Your task to perform on an android device: What's on my calendar tomorrow? Image 0: 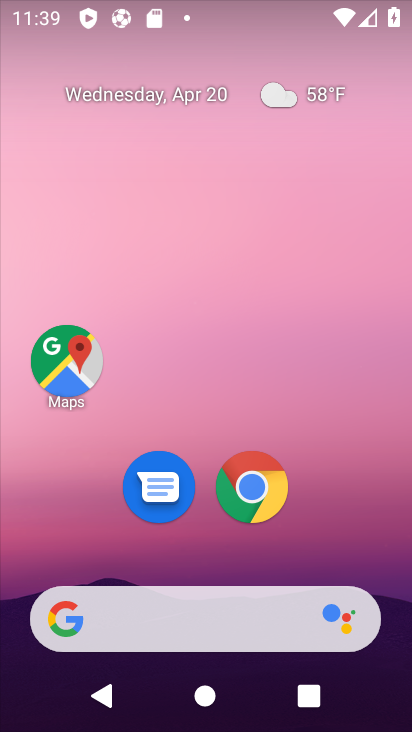
Step 0: drag from (388, 552) to (374, 55)
Your task to perform on an android device: What's on my calendar tomorrow? Image 1: 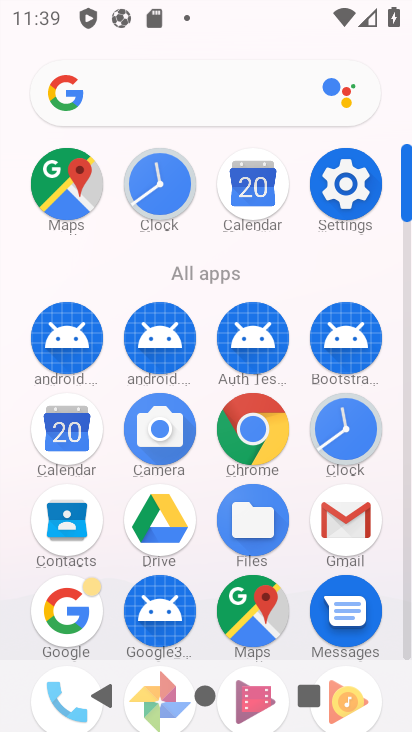
Step 1: click (63, 448)
Your task to perform on an android device: What's on my calendar tomorrow? Image 2: 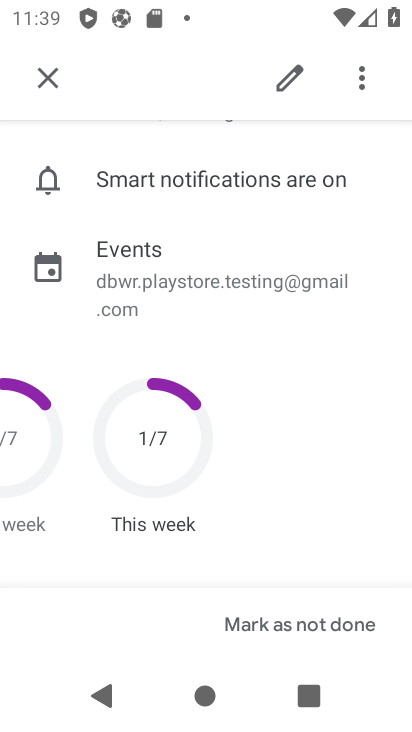
Step 2: click (46, 73)
Your task to perform on an android device: What's on my calendar tomorrow? Image 3: 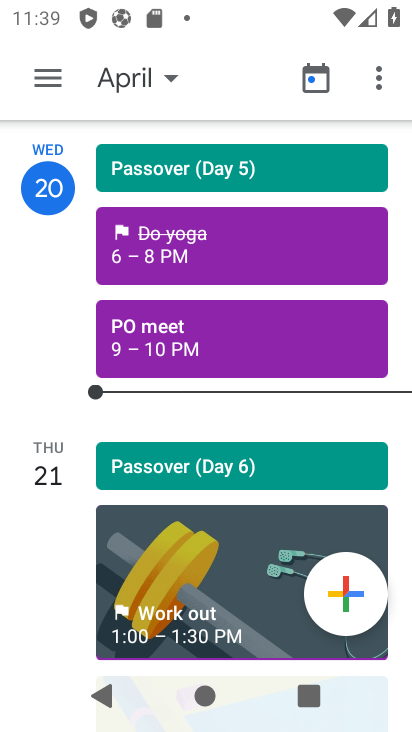
Step 3: click (178, 82)
Your task to perform on an android device: What's on my calendar tomorrow? Image 4: 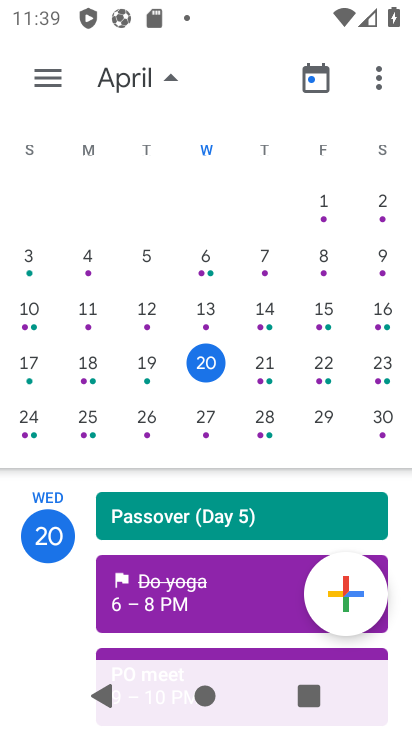
Step 4: click (251, 365)
Your task to perform on an android device: What's on my calendar tomorrow? Image 5: 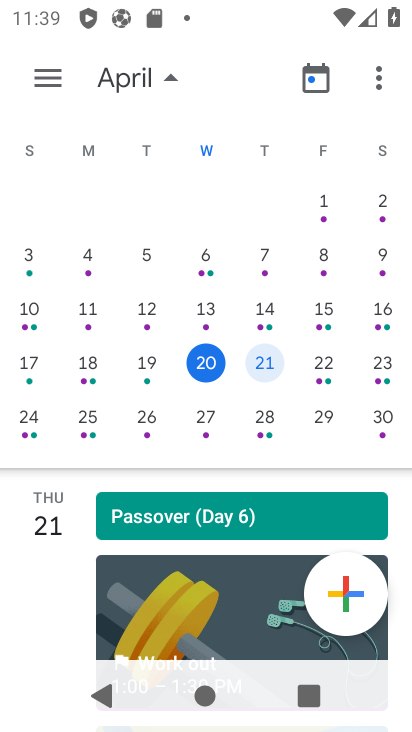
Step 5: click (264, 365)
Your task to perform on an android device: What's on my calendar tomorrow? Image 6: 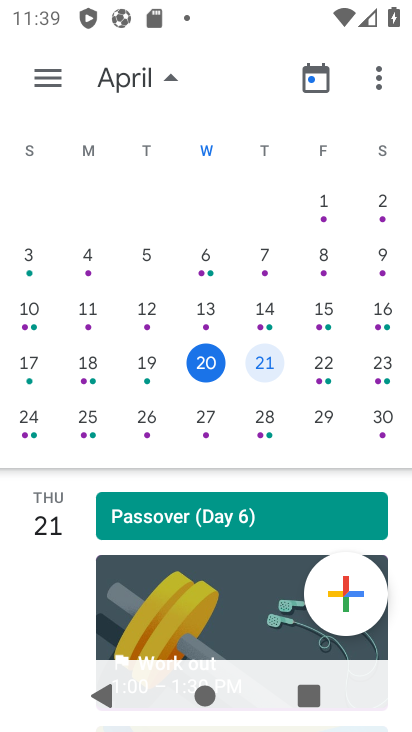
Step 6: drag from (245, 506) to (278, 226)
Your task to perform on an android device: What's on my calendar tomorrow? Image 7: 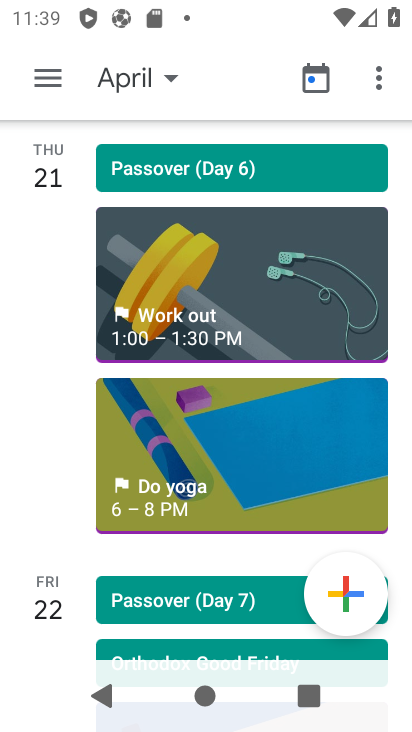
Step 7: click (218, 462)
Your task to perform on an android device: What's on my calendar tomorrow? Image 8: 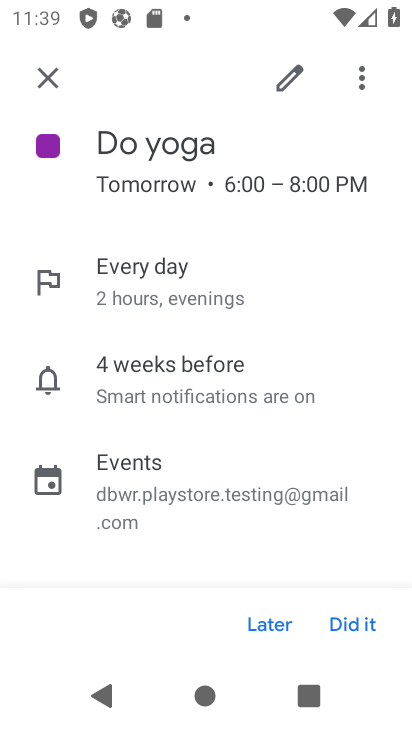
Step 8: task complete